Your task to perform on an android device: Go to Amazon Image 0: 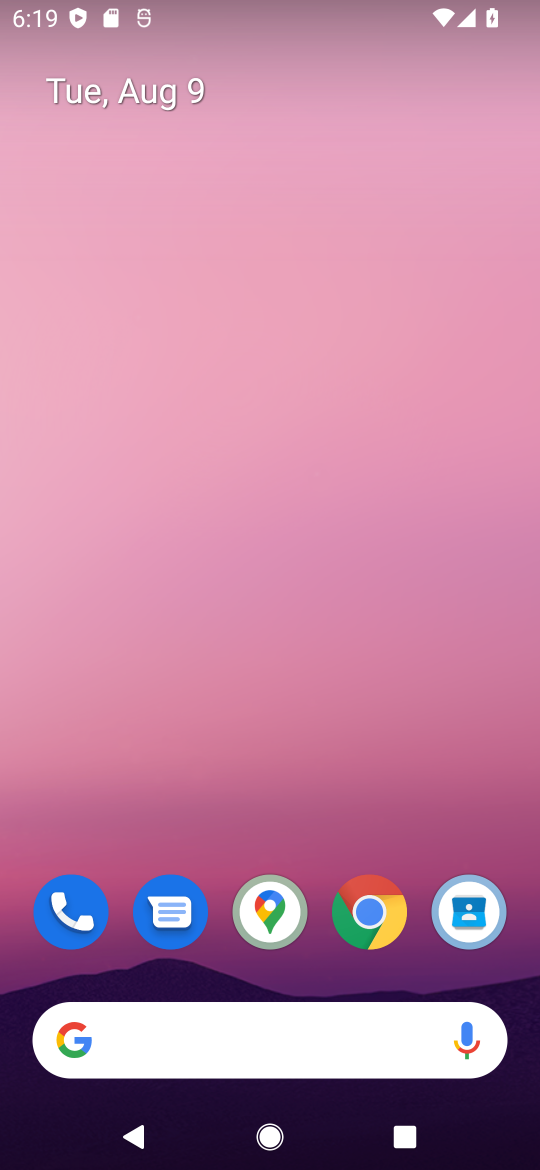
Step 0: press home button
Your task to perform on an android device: Go to Amazon Image 1: 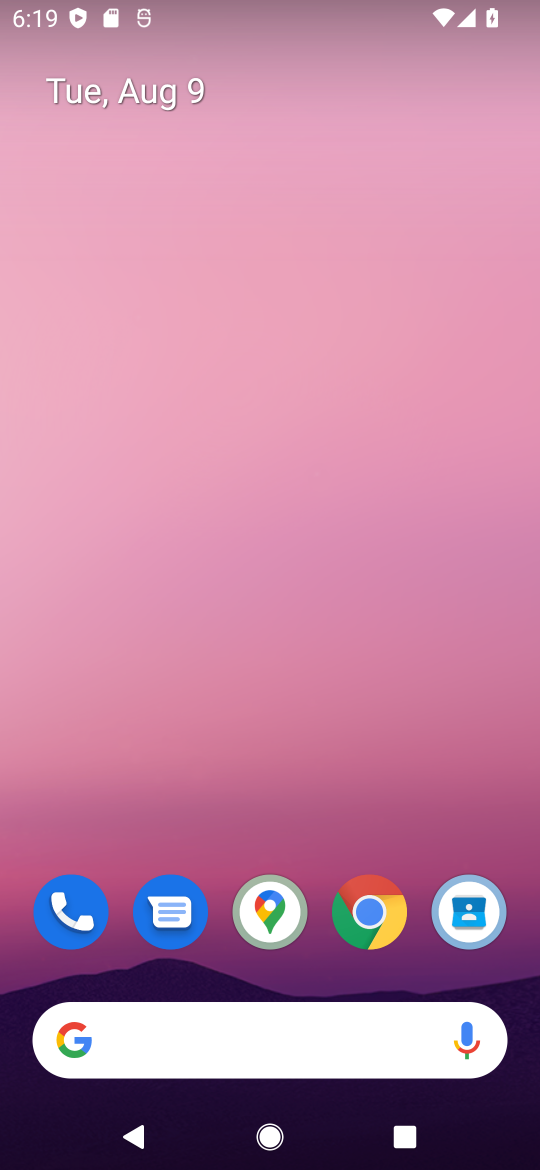
Step 1: click (77, 1040)
Your task to perform on an android device: Go to Amazon Image 2: 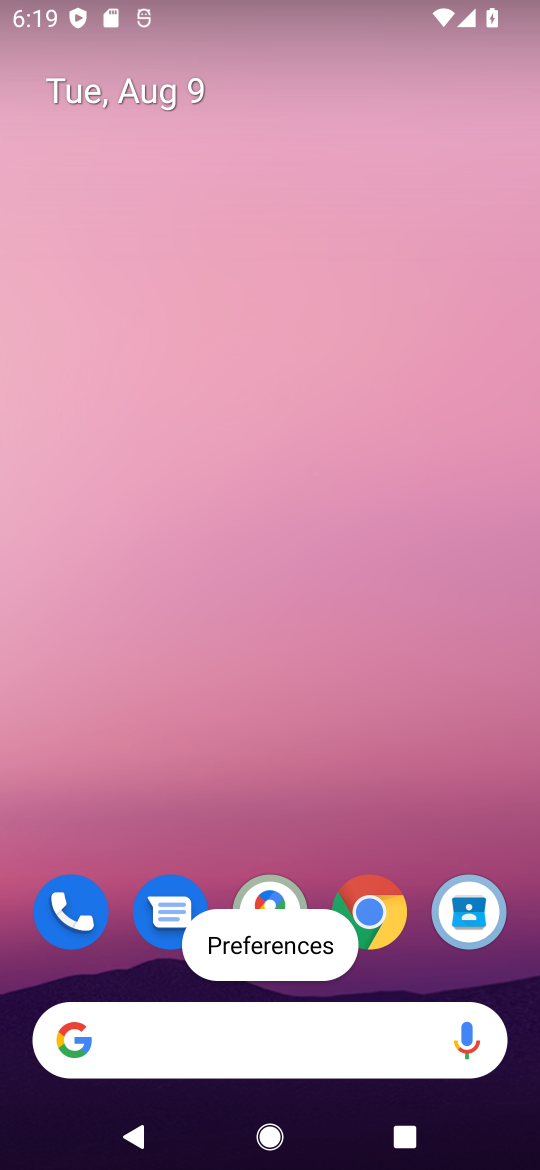
Step 2: click (76, 1043)
Your task to perform on an android device: Go to Amazon Image 3: 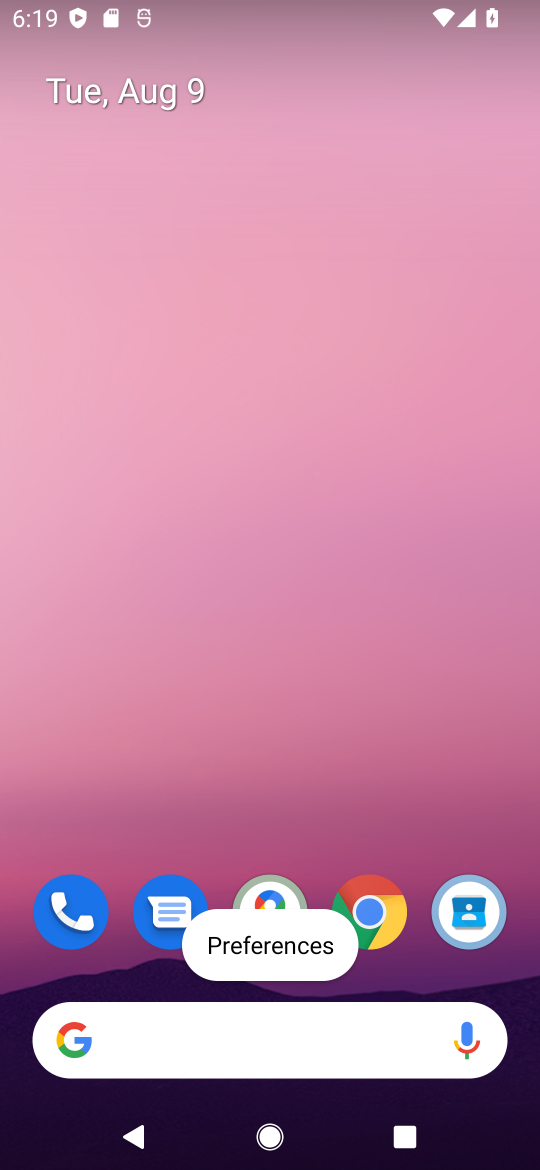
Step 3: click (72, 1043)
Your task to perform on an android device: Go to Amazon Image 4: 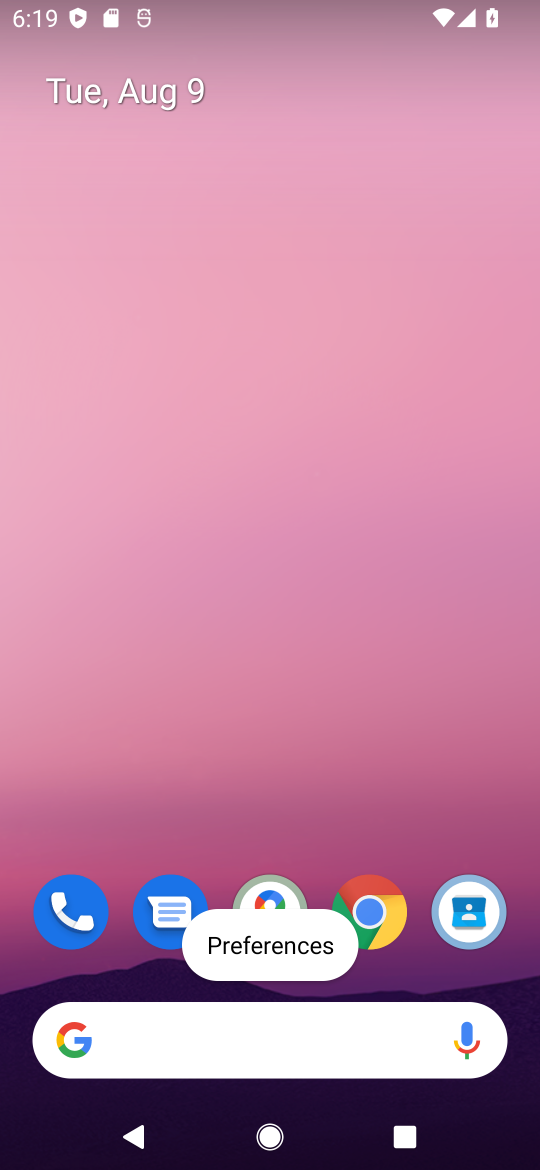
Step 4: click (72, 1043)
Your task to perform on an android device: Go to Amazon Image 5: 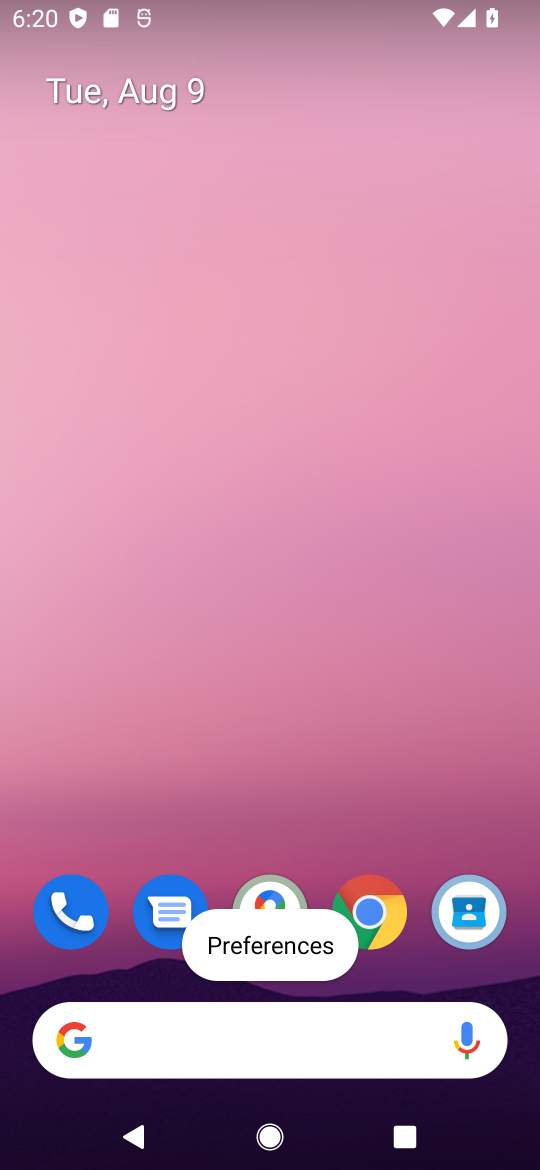
Step 5: click (72, 1043)
Your task to perform on an android device: Go to Amazon Image 6: 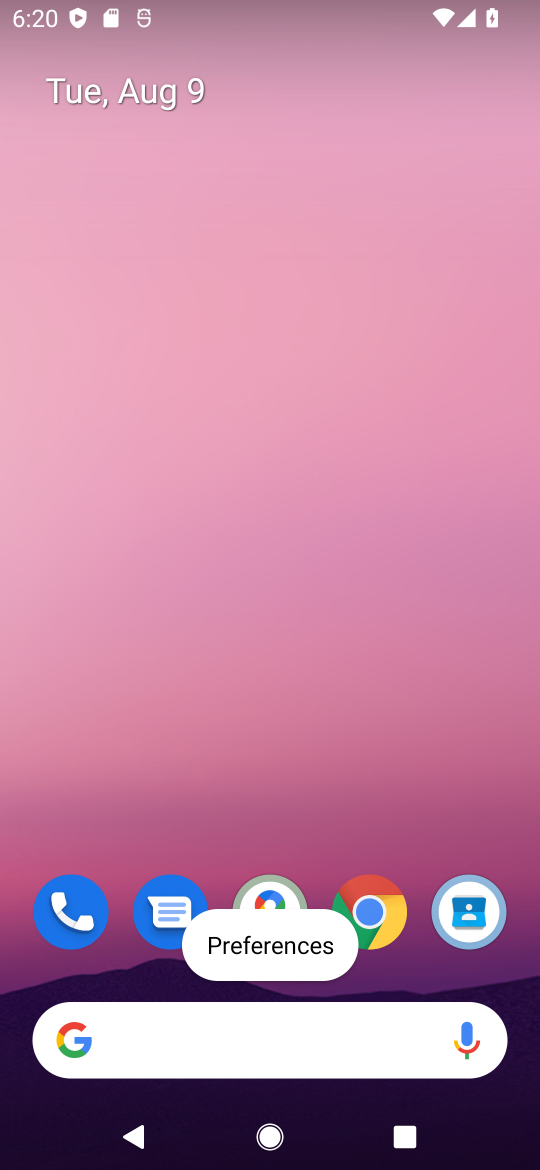
Step 6: click (65, 1046)
Your task to perform on an android device: Go to Amazon Image 7: 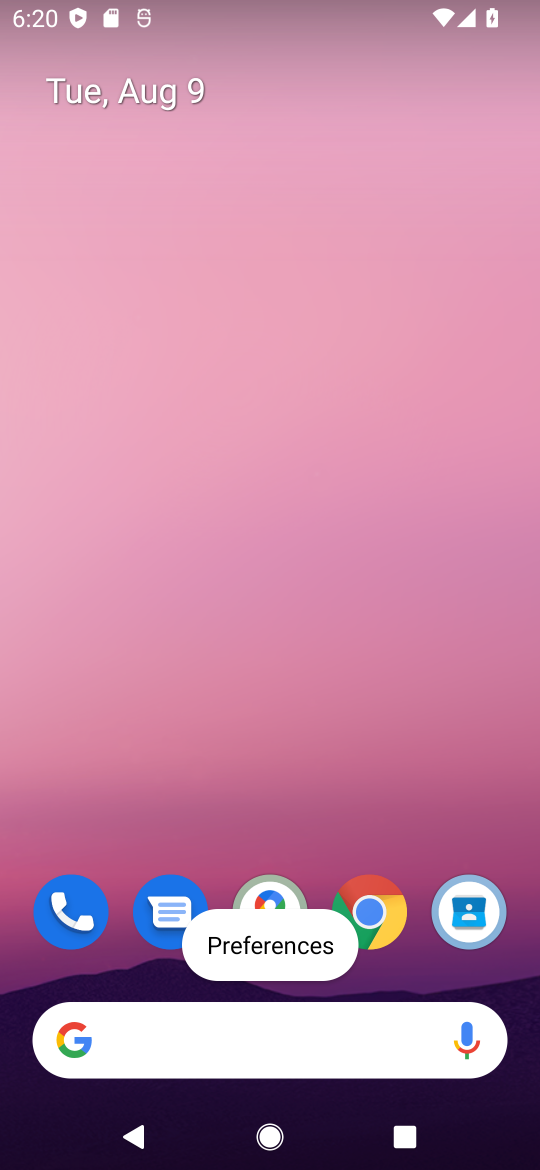
Step 7: click (60, 1023)
Your task to perform on an android device: Go to Amazon Image 8: 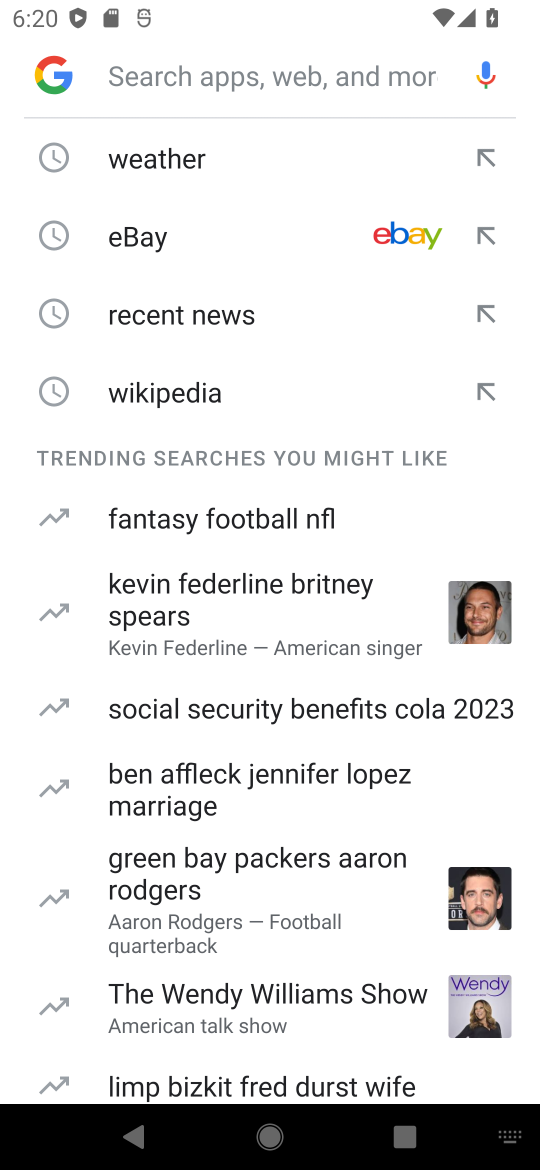
Step 8: type "Amazon"
Your task to perform on an android device: Go to Amazon Image 9: 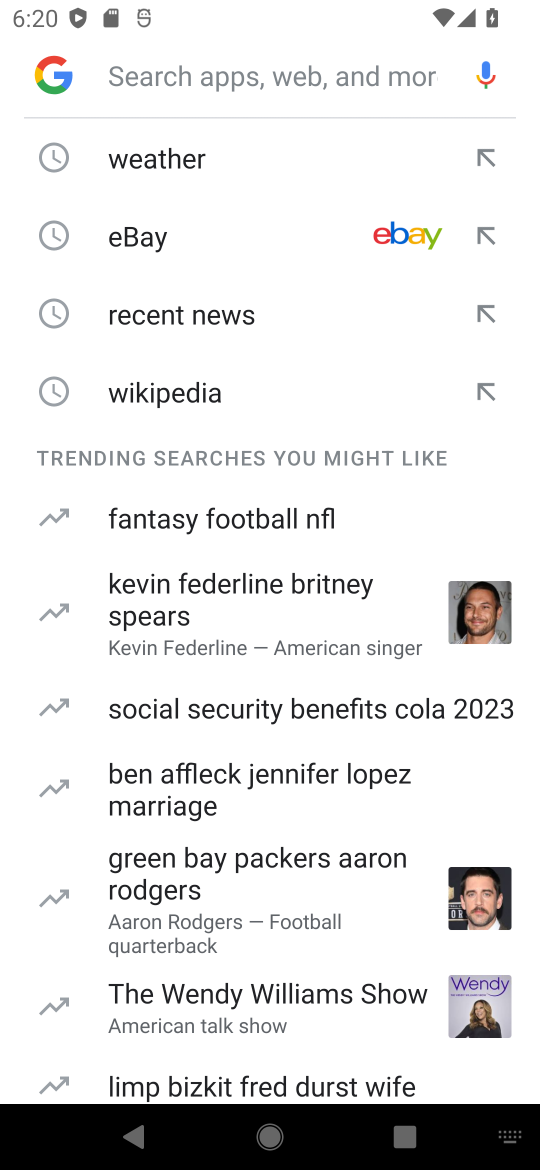
Step 9: click (203, 83)
Your task to perform on an android device: Go to Amazon Image 10: 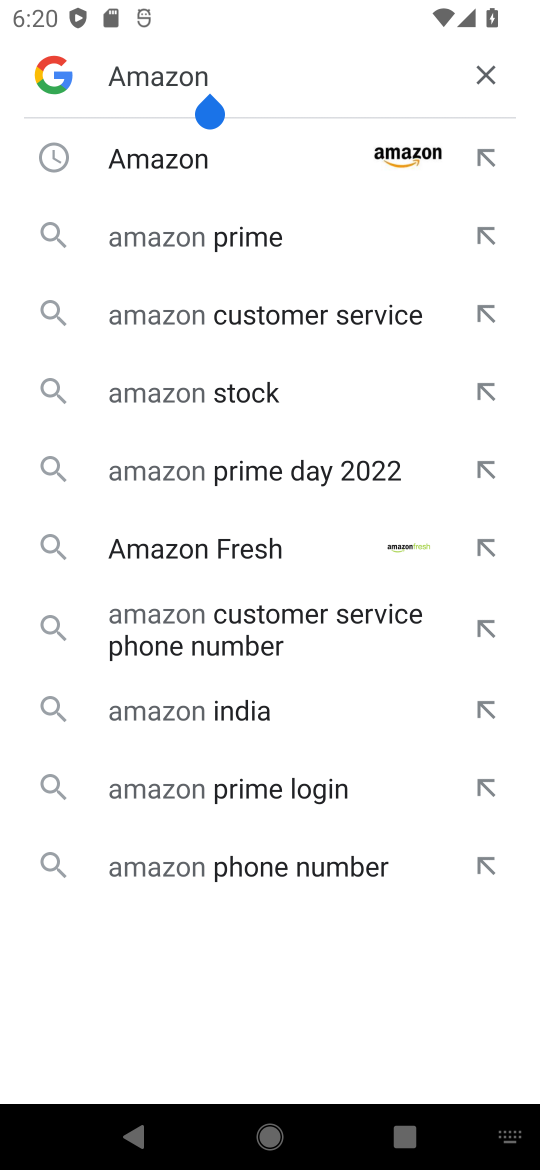
Step 10: click (412, 146)
Your task to perform on an android device: Go to Amazon Image 11: 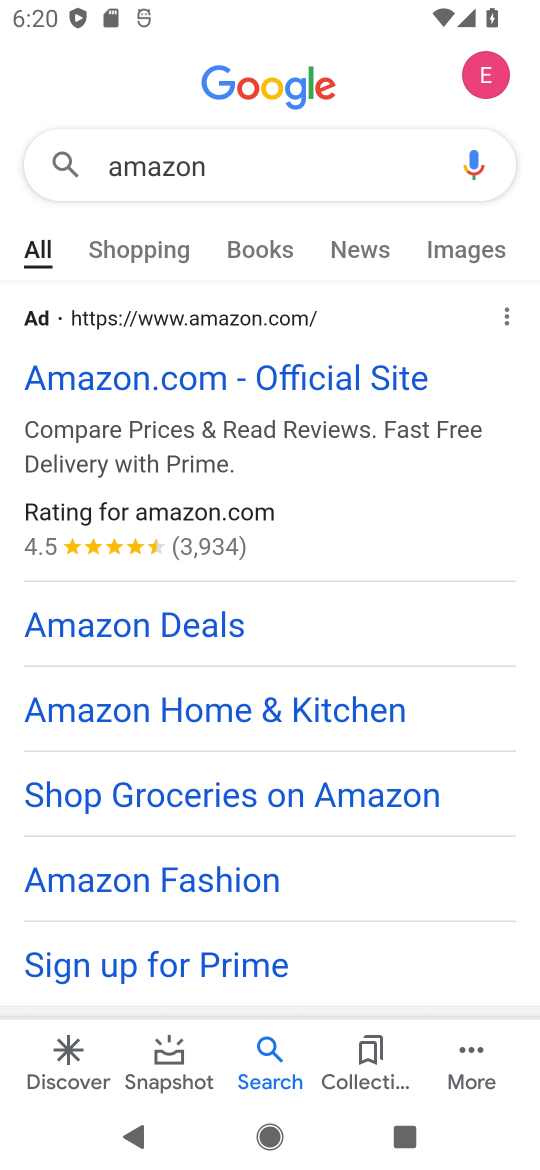
Step 11: drag from (329, 553) to (300, 95)
Your task to perform on an android device: Go to Amazon Image 12: 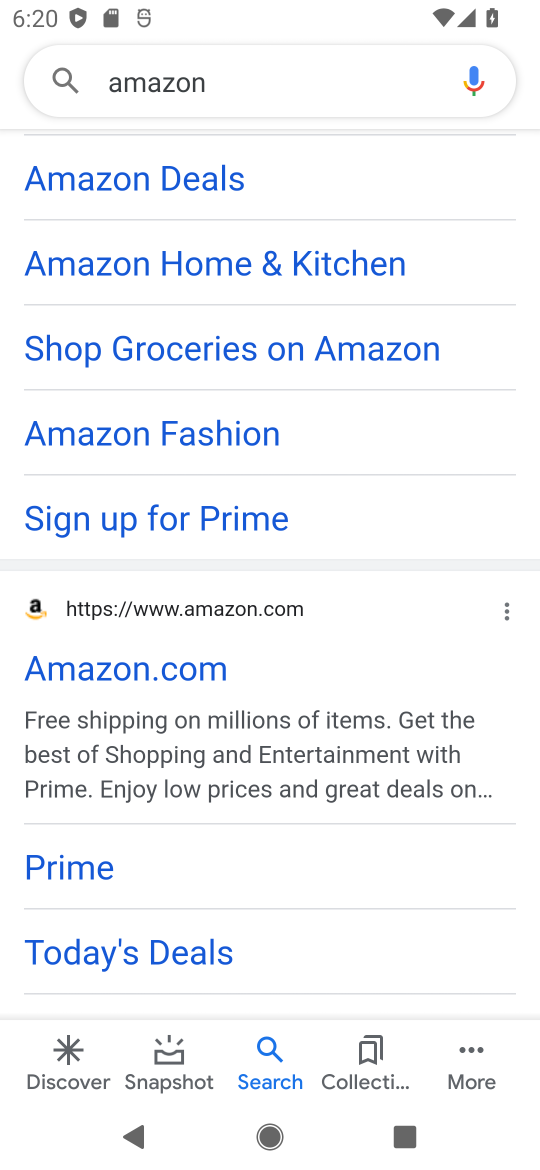
Step 12: click (96, 679)
Your task to perform on an android device: Go to Amazon Image 13: 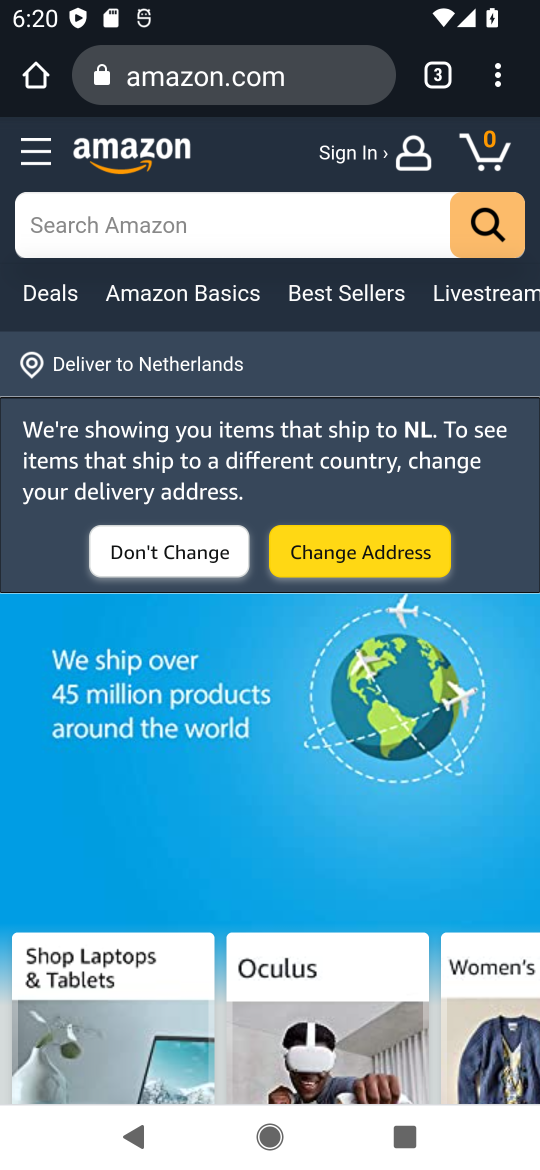
Step 13: task complete